Your task to perform on an android device: toggle sleep mode Image 0: 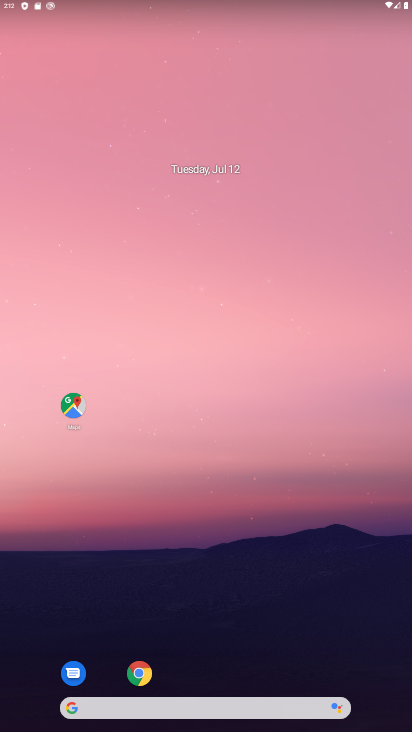
Step 0: drag from (207, 548) to (221, 135)
Your task to perform on an android device: toggle sleep mode Image 1: 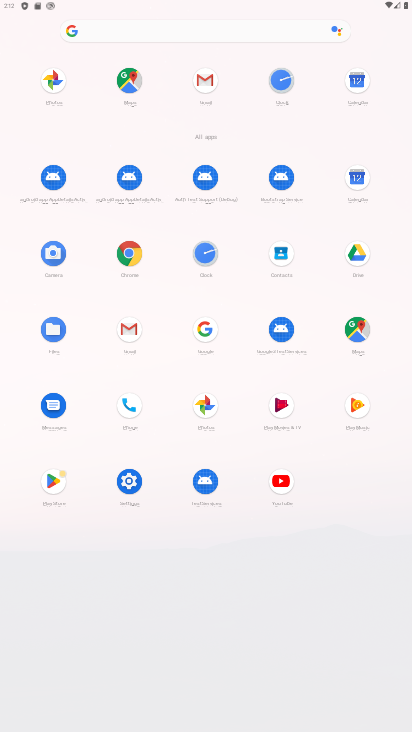
Step 1: click (124, 481)
Your task to perform on an android device: toggle sleep mode Image 2: 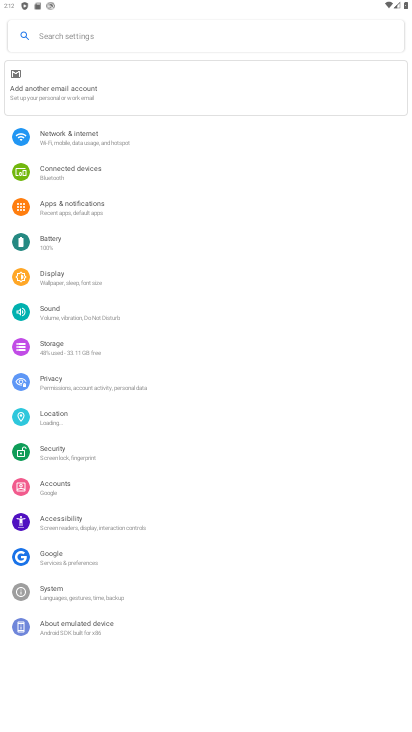
Step 2: click (76, 272)
Your task to perform on an android device: toggle sleep mode Image 3: 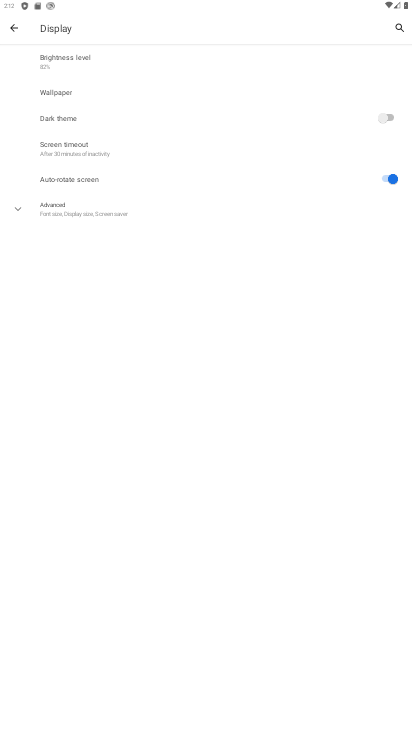
Step 3: click (94, 146)
Your task to perform on an android device: toggle sleep mode Image 4: 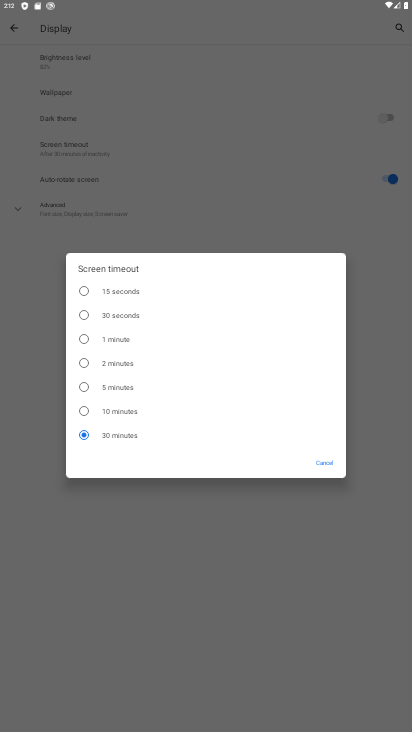
Step 4: click (80, 315)
Your task to perform on an android device: toggle sleep mode Image 5: 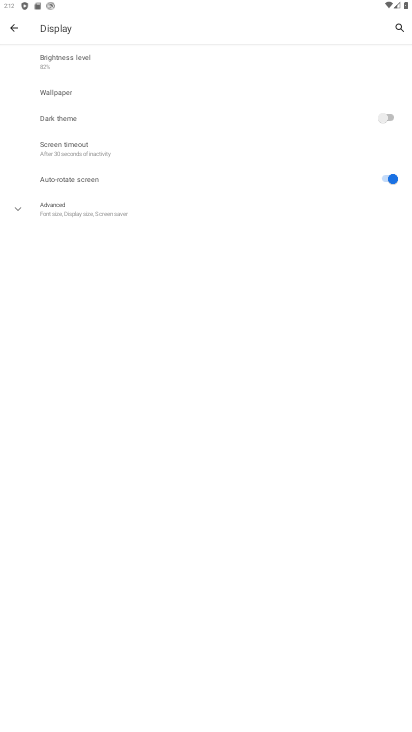
Step 5: task complete